Your task to perform on an android device: Open the calendar and show me this week's events? Image 0: 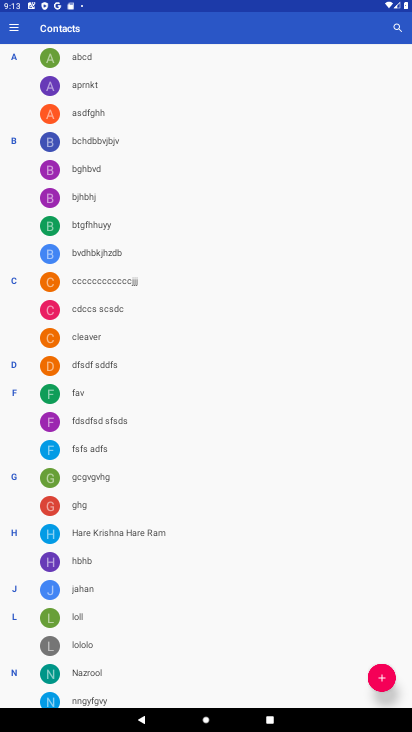
Step 0: press home button
Your task to perform on an android device: Open the calendar and show me this week's events? Image 1: 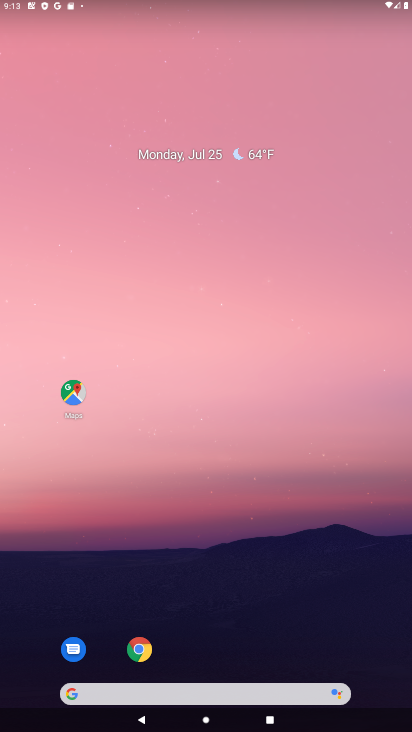
Step 1: drag from (230, 614) to (198, 12)
Your task to perform on an android device: Open the calendar and show me this week's events? Image 2: 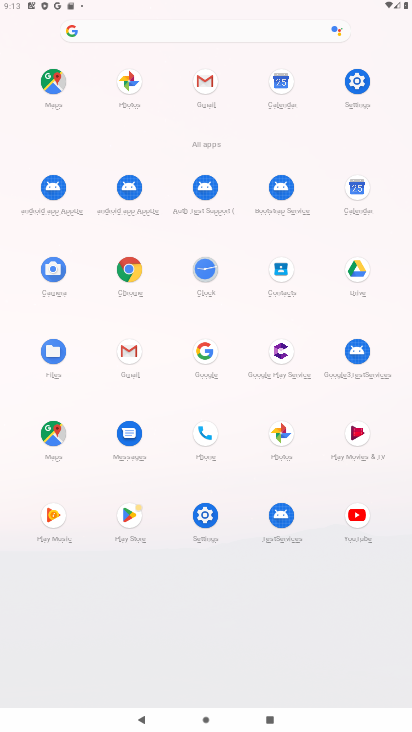
Step 2: click (353, 196)
Your task to perform on an android device: Open the calendar and show me this week's events? Image 3: 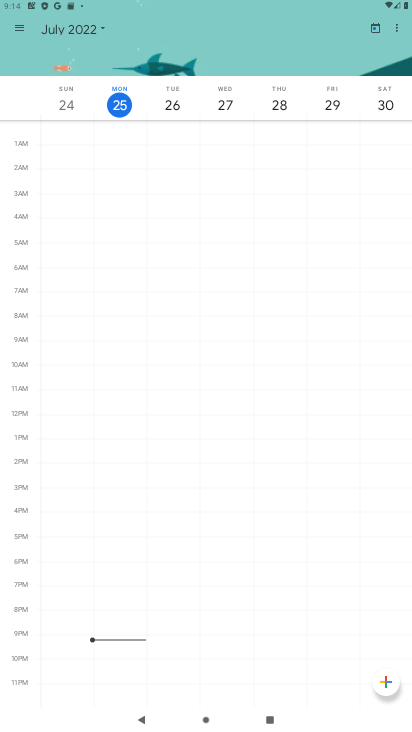
Step 3: task complete